Your task to perform on an android device: clear history in the chrome app Image 0: 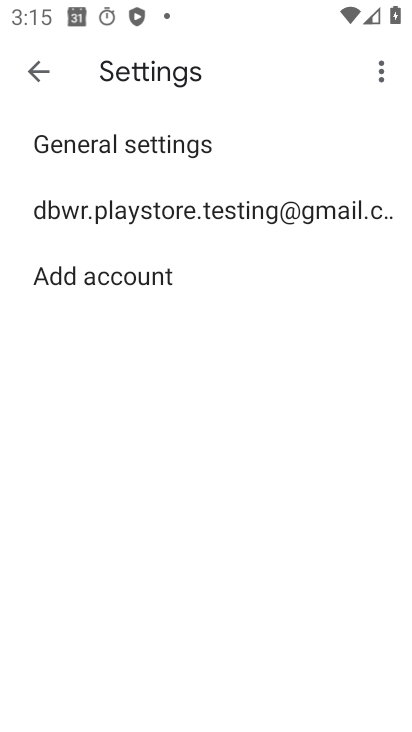
Step 0: click (29, 70)
Your task to perform on an android device: clear history in the chrome app Image 1: 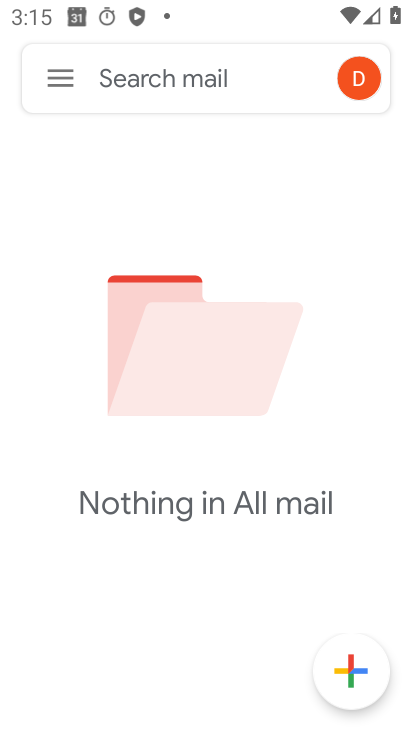
Step 1: press home button
Your task to perform on an android device: clear history in the chrome app Image 2: 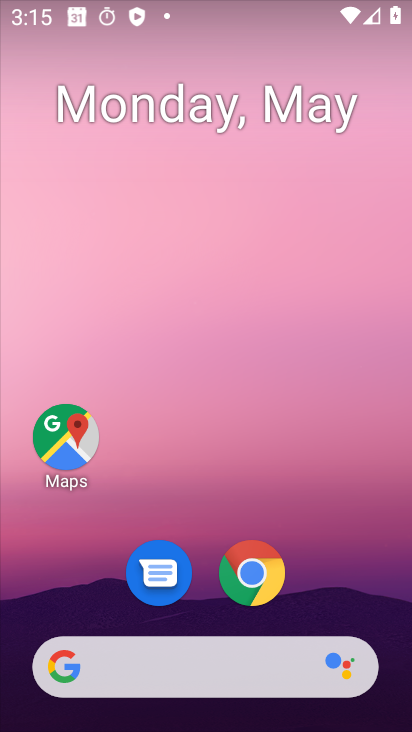
Step 2: drag from (339, 599) to (106, 10)
Your task to perform on an android device: clear history in the chrome app Image 3: 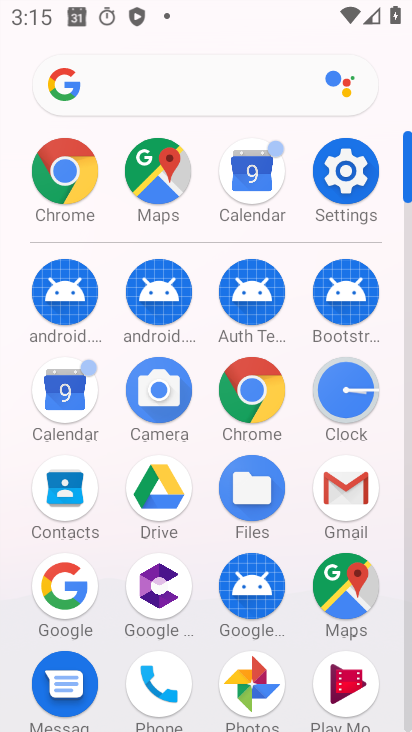
Step 3: click (220, 400)
Your task to perform on an android device: clear history in the chrome app Image 4: 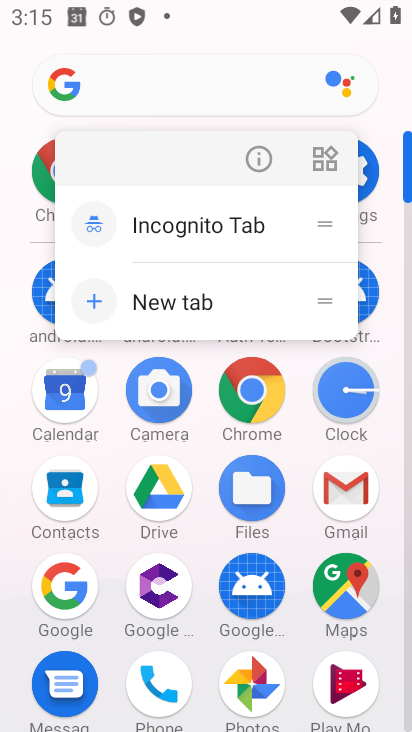
Step 4: click (250, 407)
Your task to perform on an android device: clear history in the chrome app Image 5: 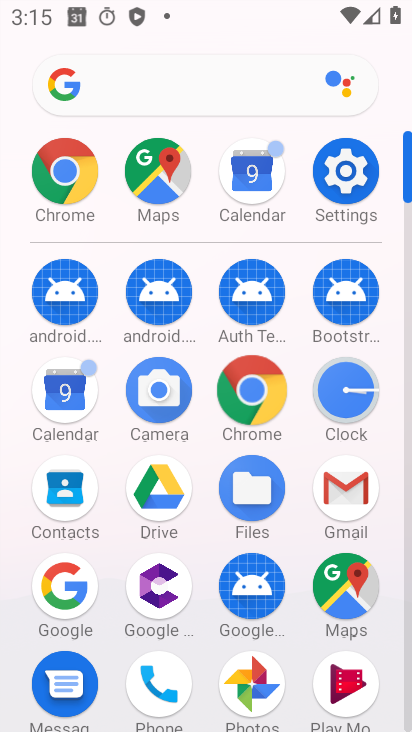
Step 5: click (250, 404)
Your task to perform on an android device: clear history in the chrome app Image 6: 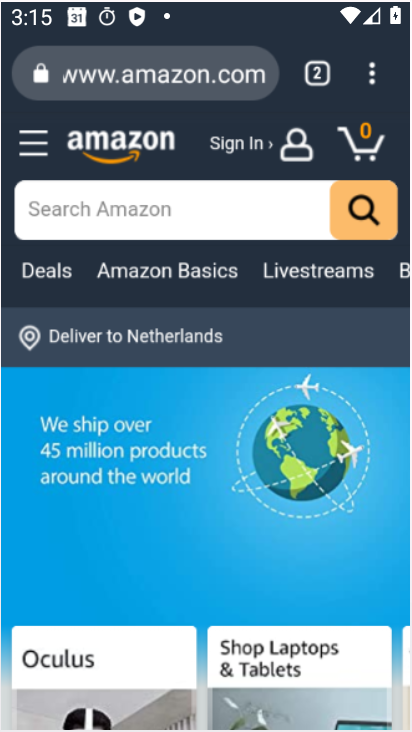
Step 6: click (248, 402)
Your task to perform on an android device: clear history in the chrome app Image 7: 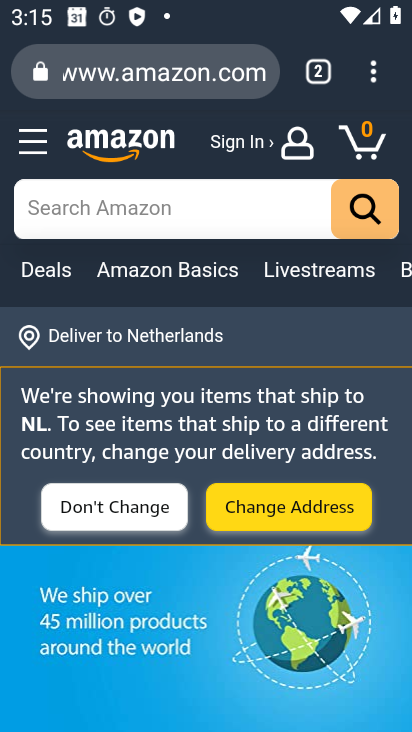
Step 7: click (371, 74)
Your task to perform on an android device: clear history in the chrome app Image 8: 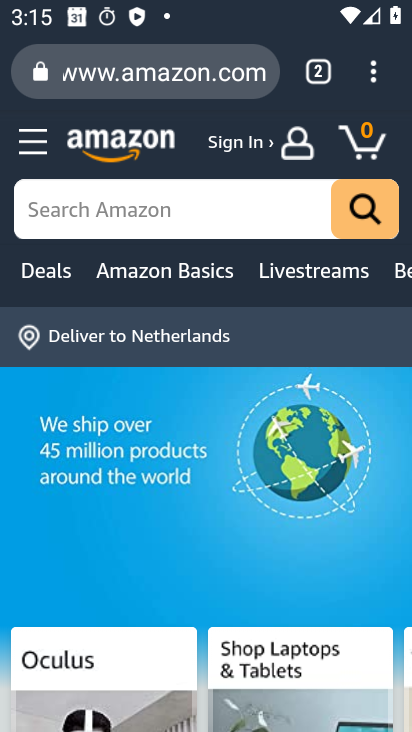
Step 8: drag from (387, 76) to (123, 404)
Your task to perform on an android device: clear history in the chrome app Image 9: 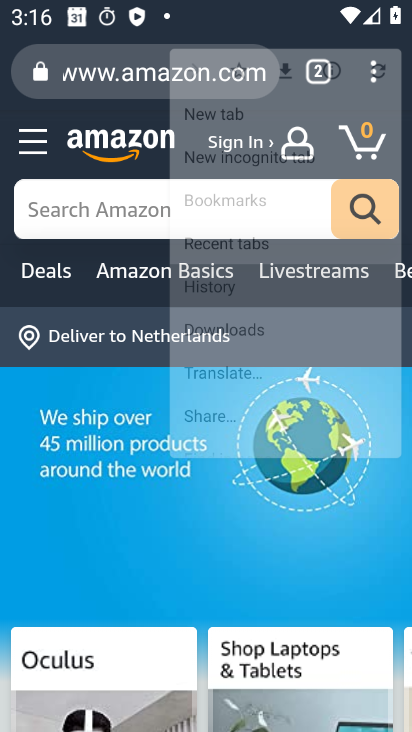
Step 9: click (123, 404)
Your task to perform on an android device: clear history in the chrome app Image 10: 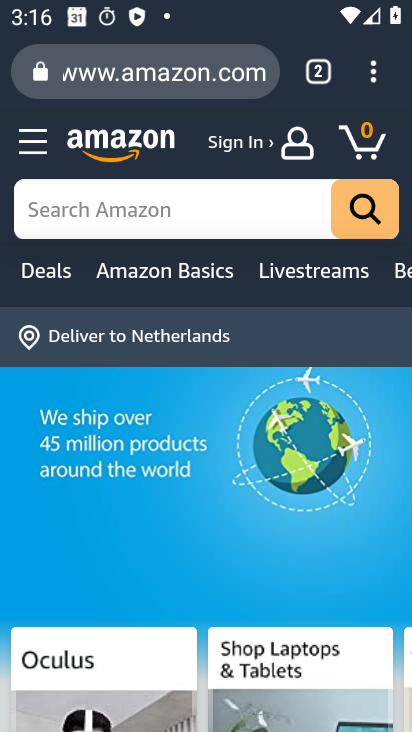
Step 10: click (130, 402)
Your task to perform on an android device: clear history in the chrome app Image 11: 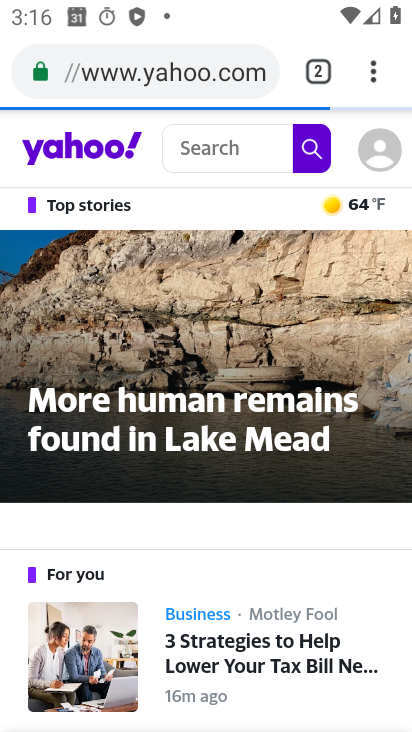
Step 11: drag from (375, 73) to (116, 267)
Your task to perform on an android device: clear history in the chrome app Image 12: 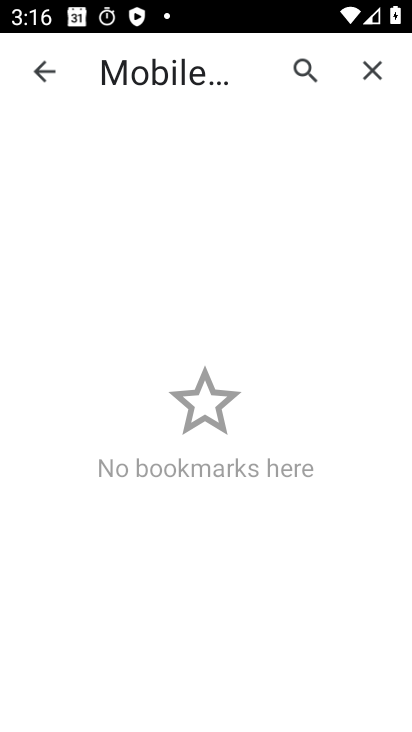
Step 12: press back button
Your task to perform on an android device: clear history in the chrome app Image 13: 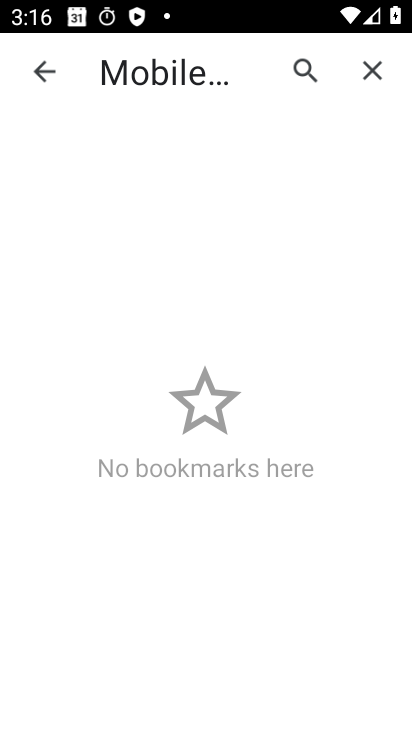
Step 13: press back button
Your task to perform on an android device: clear history in the chrome app Image 14: 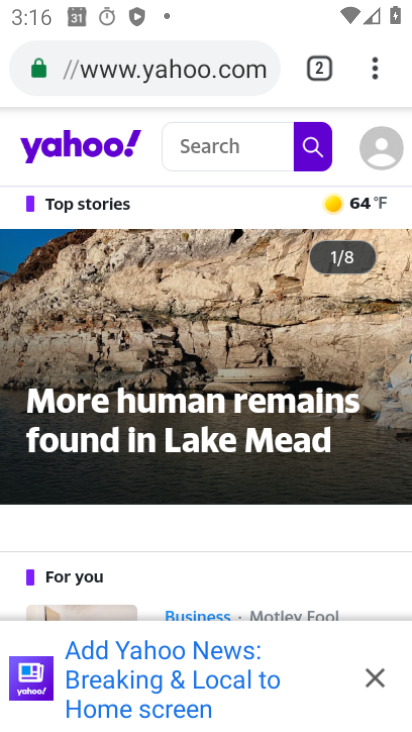
Step 14: press back button
Your task to perform on an android device: clear history in the chrome app Image 15: 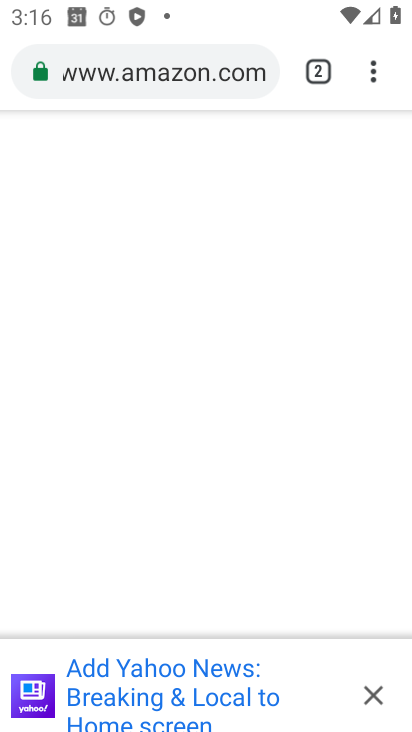
Step 15: press back button
Your task to perform on an android device: clear history in the chrome app Image 16: 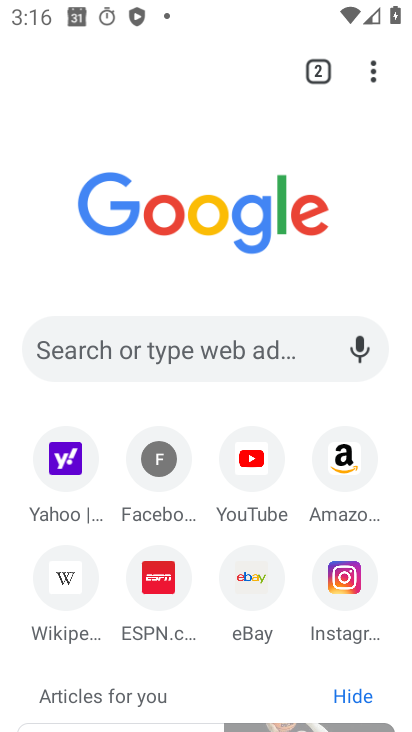
Step 16: press back button
Your task to perform on an android device: clear history in the chrome app Image 17: 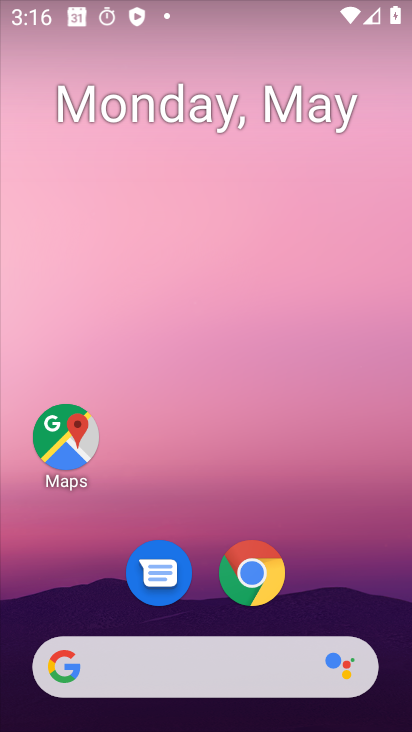
Step 17: drag from (289, 559) to (134, 127)
Your task to perform on an android device: clear history in the chrome app Image 18: 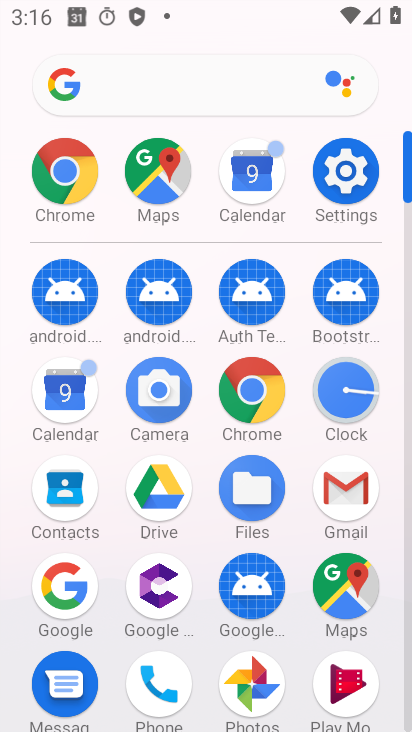
Step 18: click (73, 178)
Your task to perform on an android device: clear history in the chrome app Image 19: 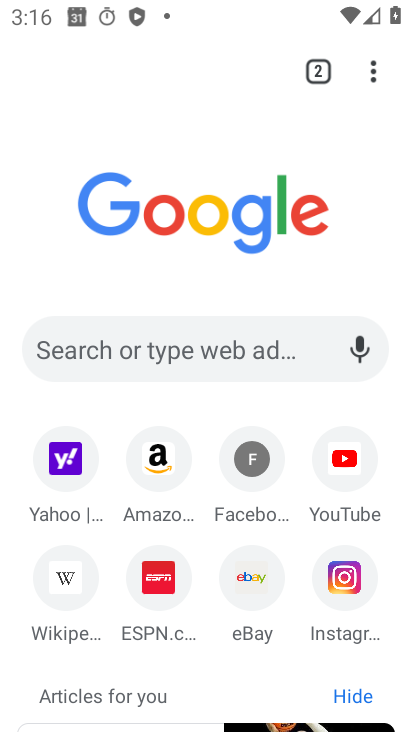
Step 19: drag from (367, 80) to (104, 408)
Your task to perform on an android device: clear history in the chrome app Image 20: 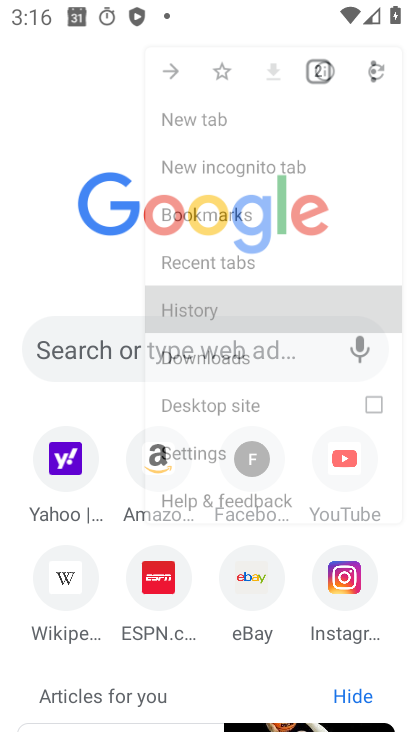
Step 20: click (104, 408)
Your task to perform on an android device: clear history in the chrome app Image 21: 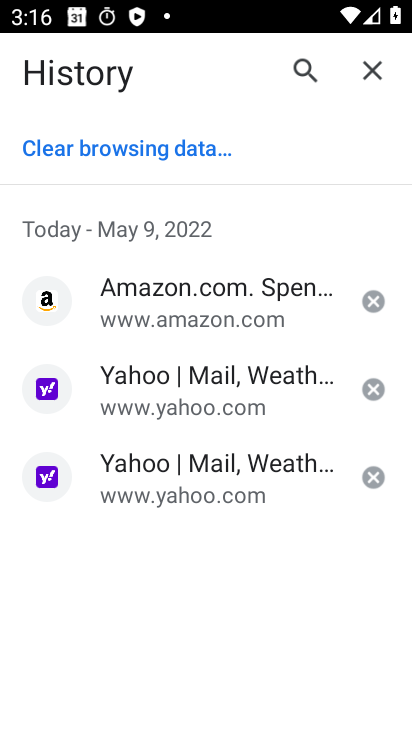
Step 21: click (381, 300)
Your task to perform on an android device: clear history in the chrome app Image 22: 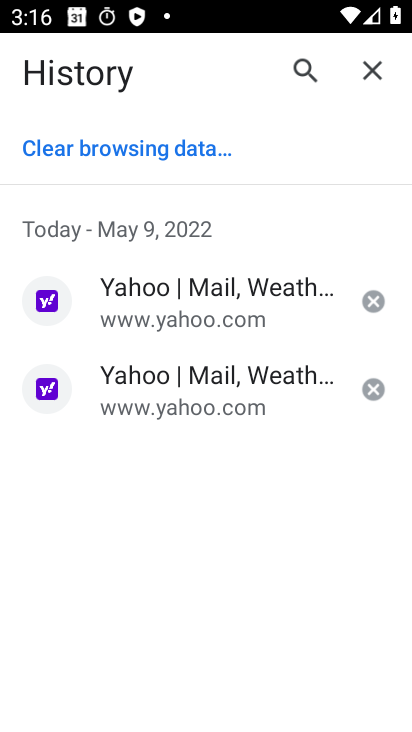
Step 22: task complete